Your task to perform on an android device: Go to privacy settings Image 0: 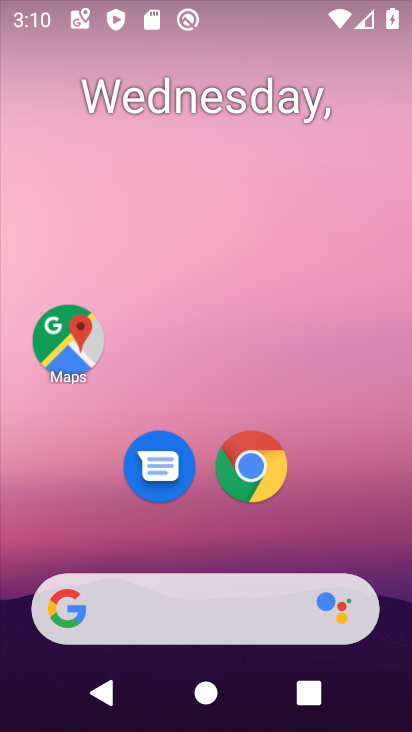
Step 0: drag from (180, 563) to (365, 31)
Your task to perform on an android device: Go to privacy settings Image 1: 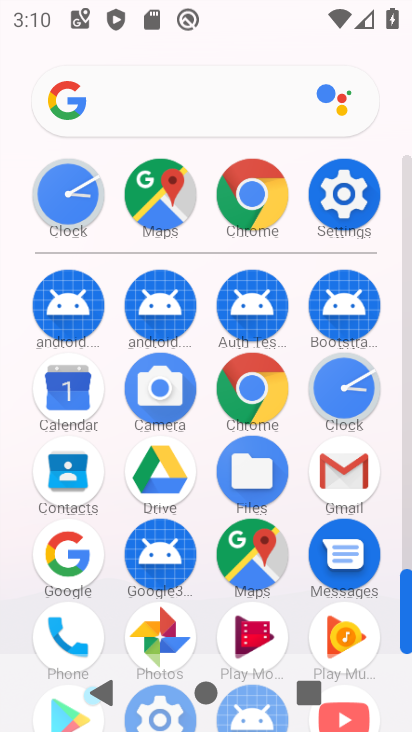
Step 1: click (354, 173)
Your task to perform on an android device: Go to privacy settings Image 2: 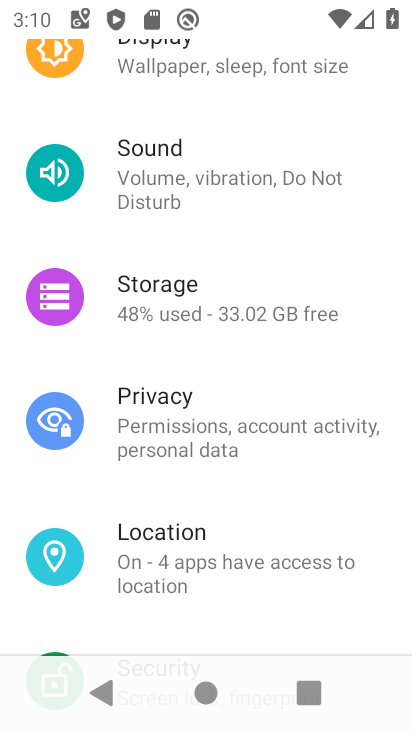
Step 2: click (194, 434)
Your task to perform on an android device: Go to privacy settings Image 3: 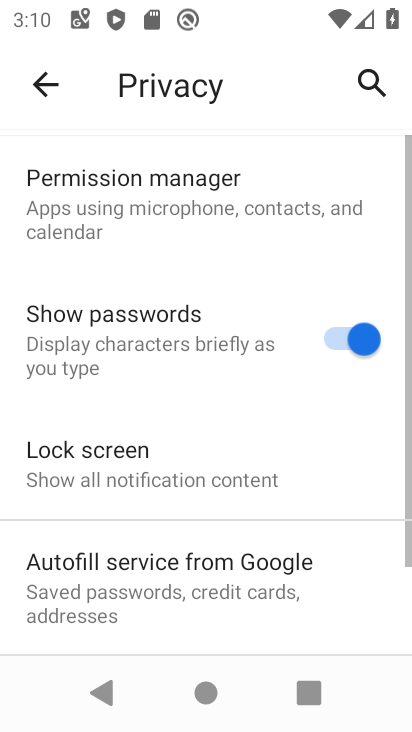
Step 3: task complete